Your task to perform on an android device: Play some music on YouTube Image 0: 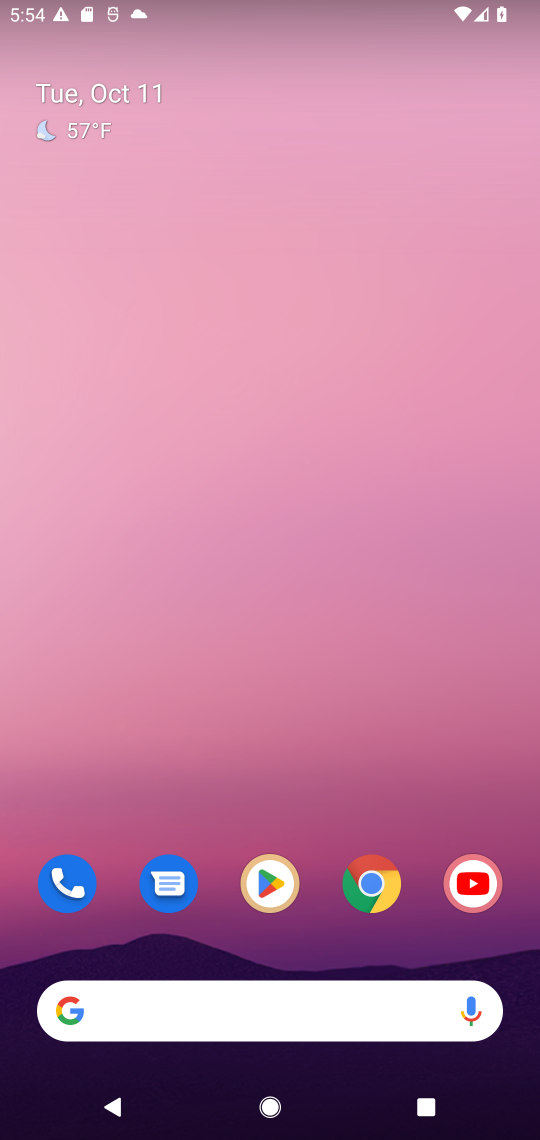
Step 0: drag from (401, 560) to (431, 89)
Your task to perform on an android device: Play some music on YouTube Image 1: 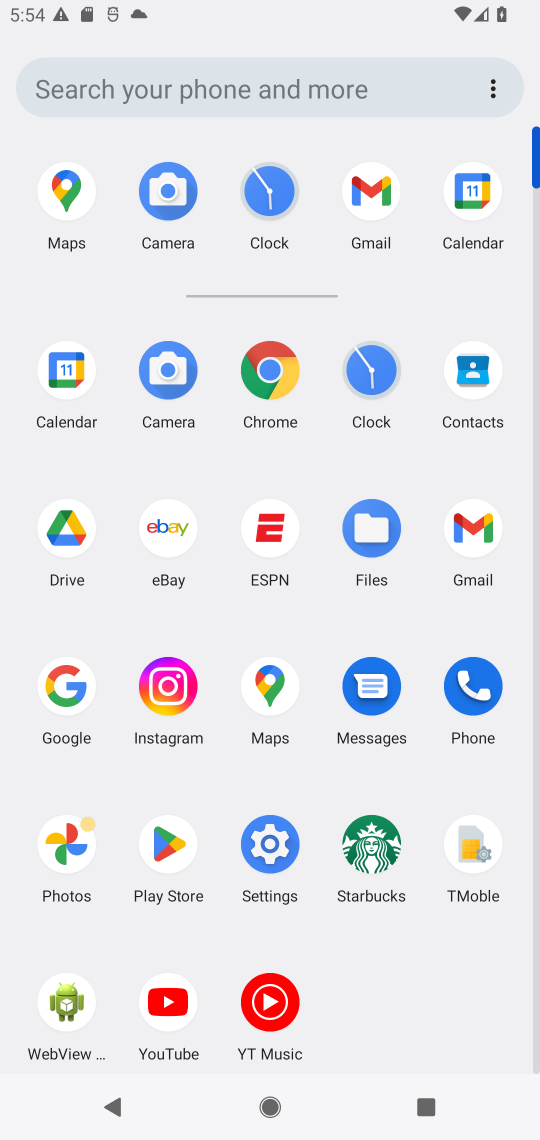
Step 1: click (158, 1008)
Your task to perform on an android device: Play some music on YouTube Image 2: 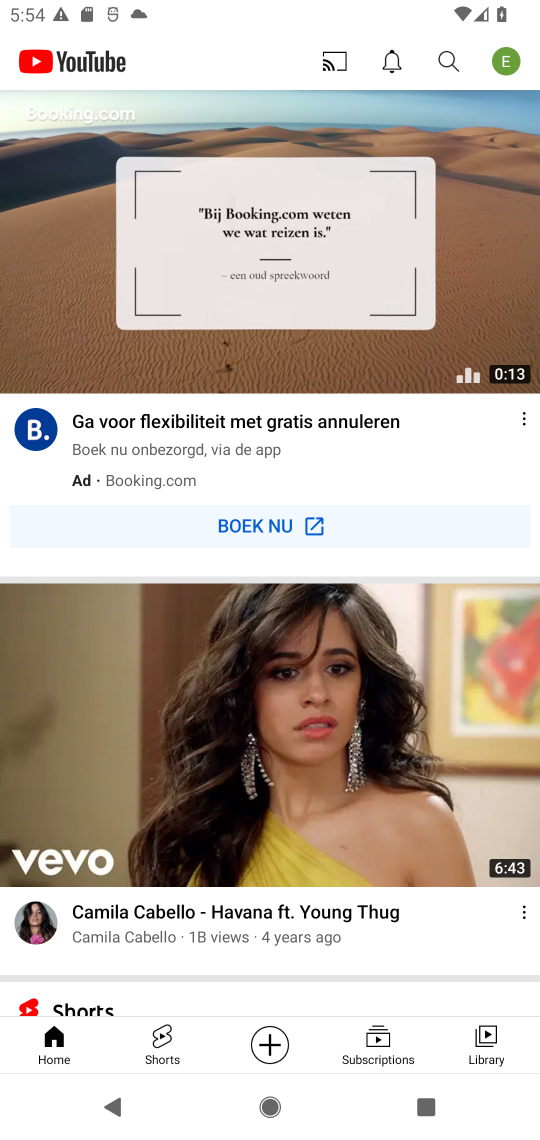
Step 2: click (433, 58)
Your task to perform on an android device: Play some music on YouTube Image 3: 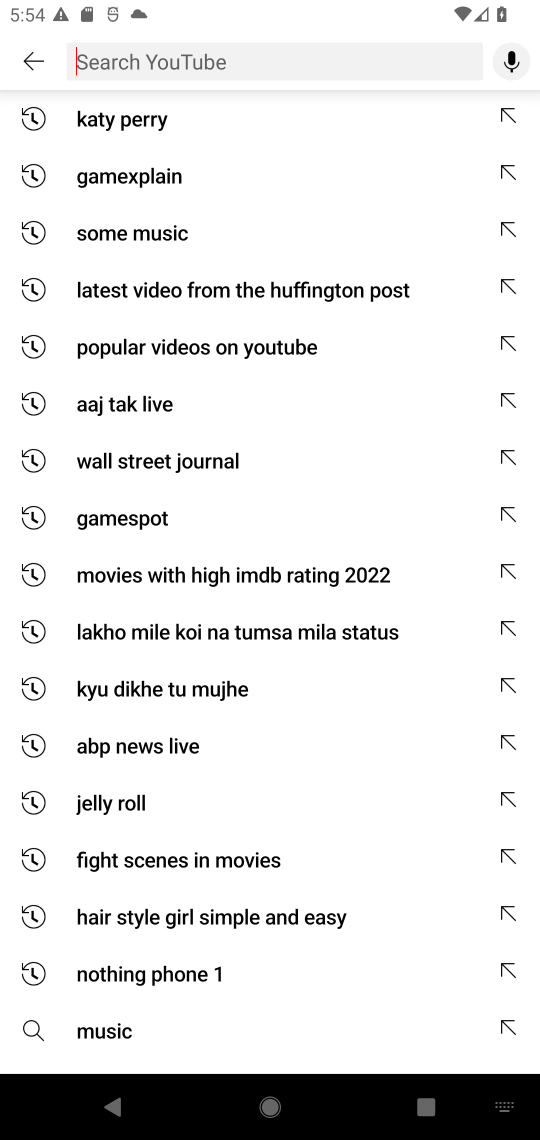
Step 3: type "i will be there for you"
Your task to perform on an android device: Play some music on YouTube Image 4: 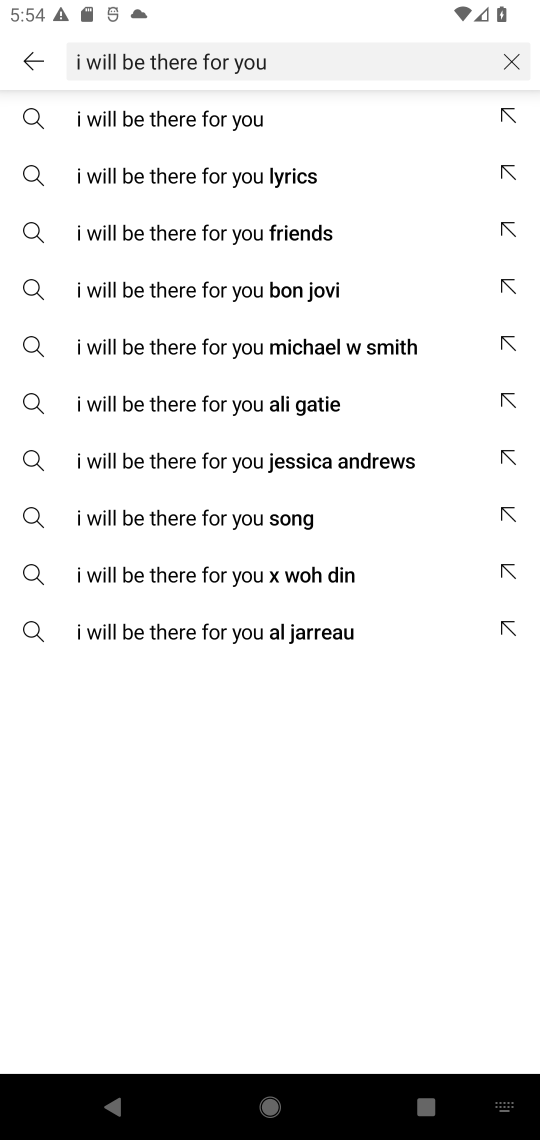
Step 4: click (277, 121)
Your task to perform on an android device: Play some music on YouTube Image 5: 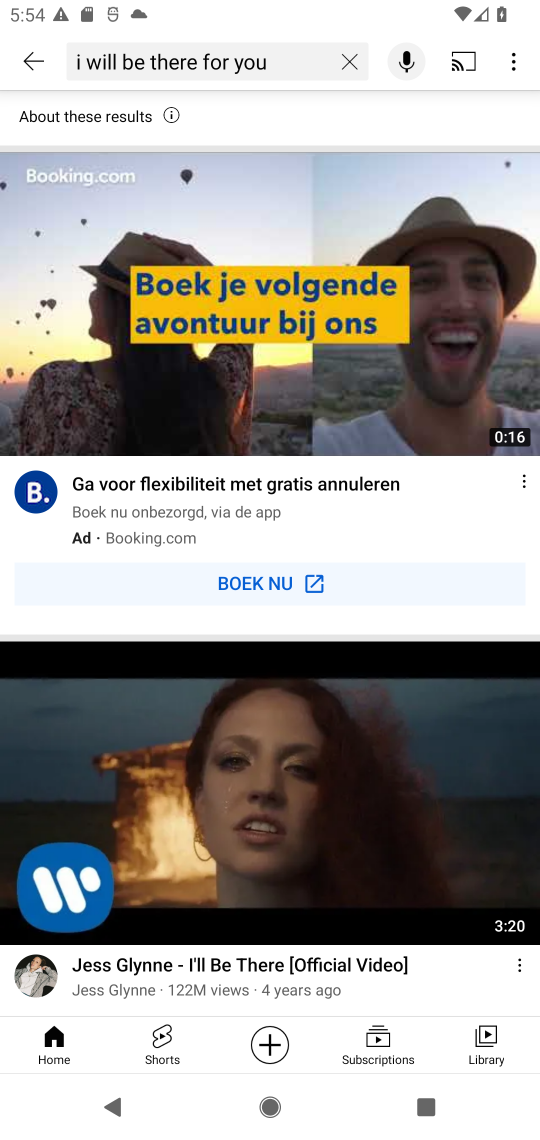
Step 5: click (250, 818)
Your task to perform on an android device: Play some music on YouTube Image 6: 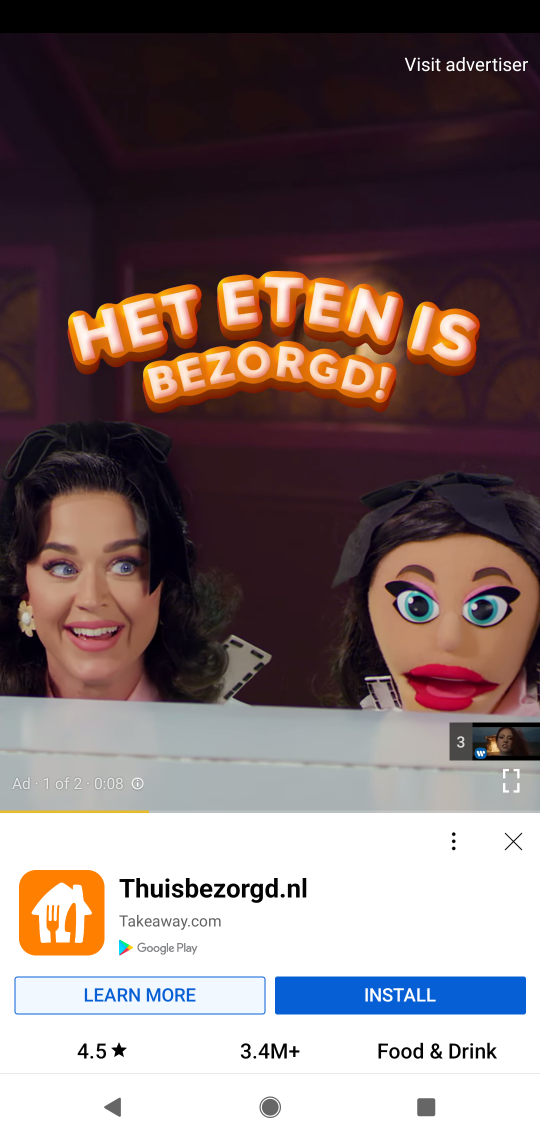
Step 6: click (521, 841)
Your task to perform on an android device: Play some music on YouTube Image 7: 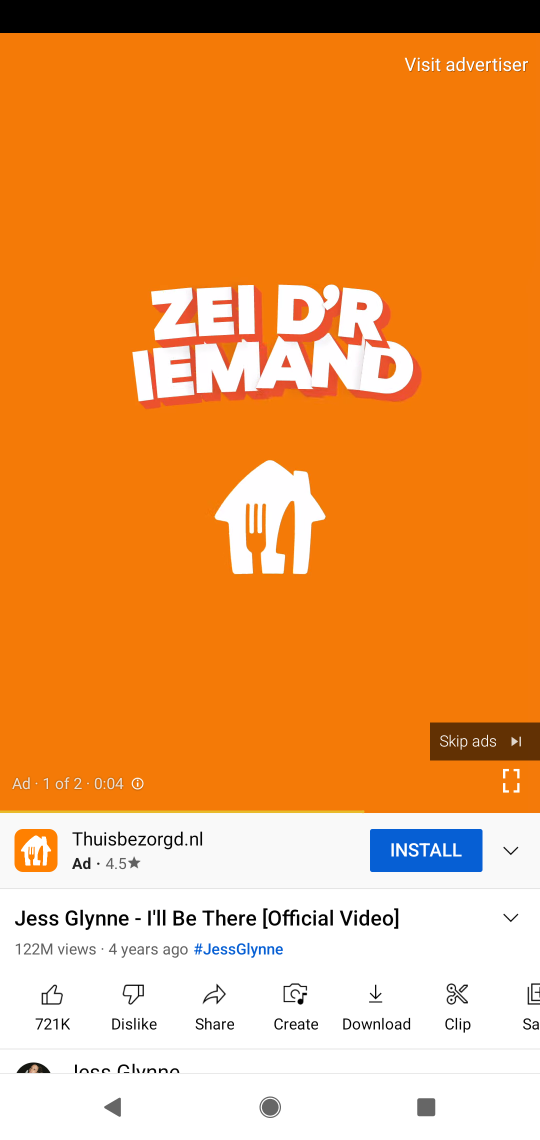
Step 7: click (482, 725)
Your task to perform on an android device: Play some music on YouTube Image 8: 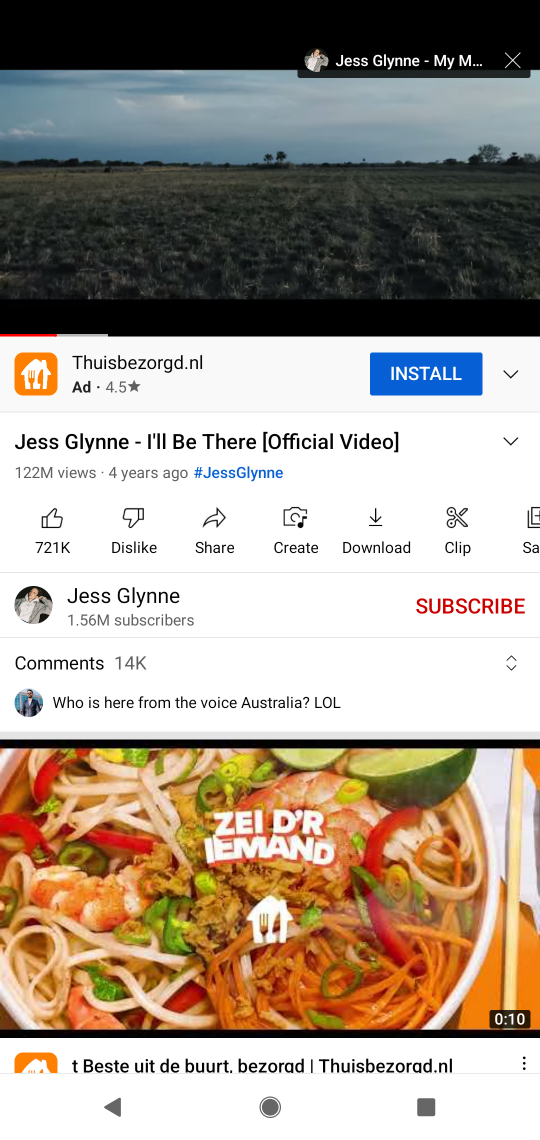
Step 8: task complete